Your task to perform on an android device: add a contact in the contacts app Image 0: 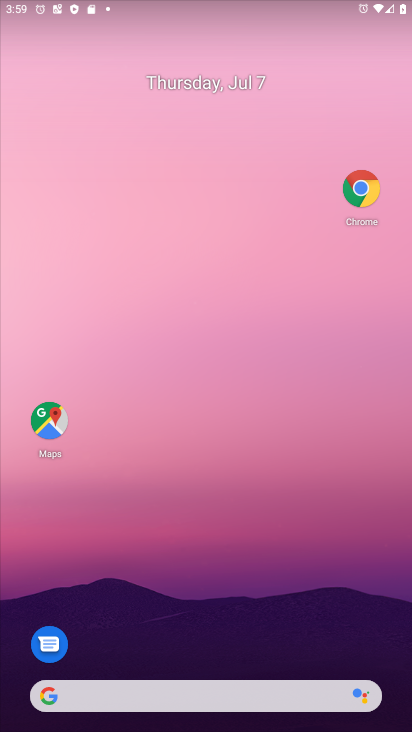
Step 0: press home button
Your task to perform on an android device: add a contact in the contacts app Image 1: 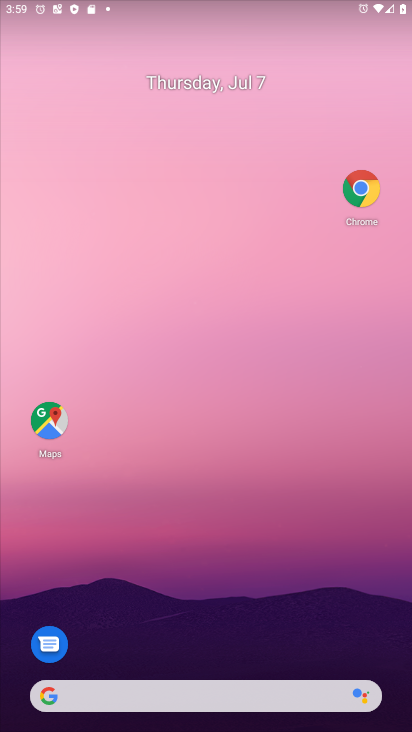
Step 1: click (239, 156)
Your task to perform on an android device: add a contact in the contacts app Image 2: 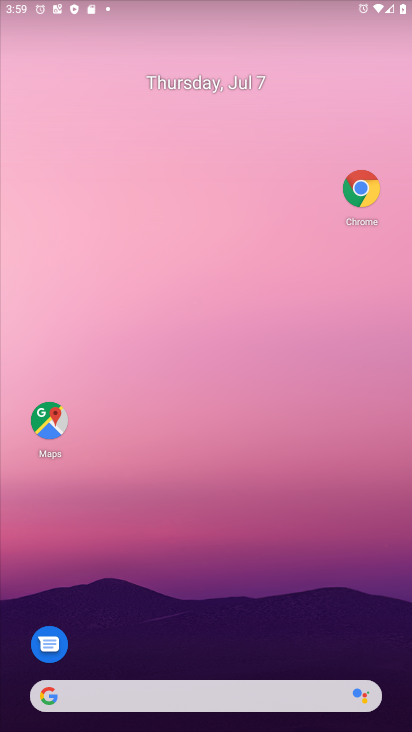
Step 2: drag from (211, 638) to (178, 244)
Your task to perform on an android device: add a contact in the contacts app Image 3: 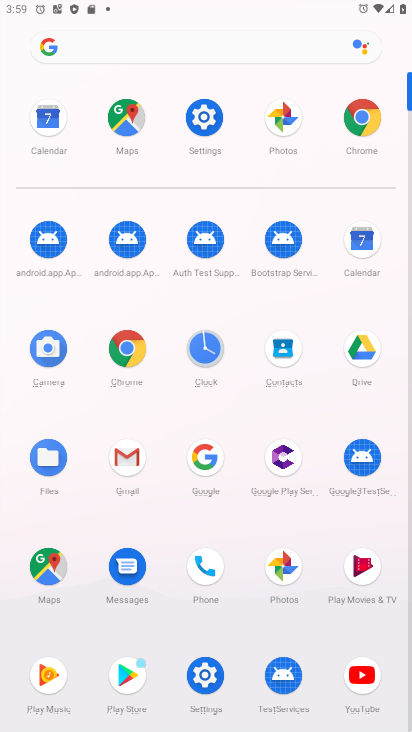
Step 3: click (283, 348)
Your task to perform on an android device: add a contact in the contacts app Image 4: 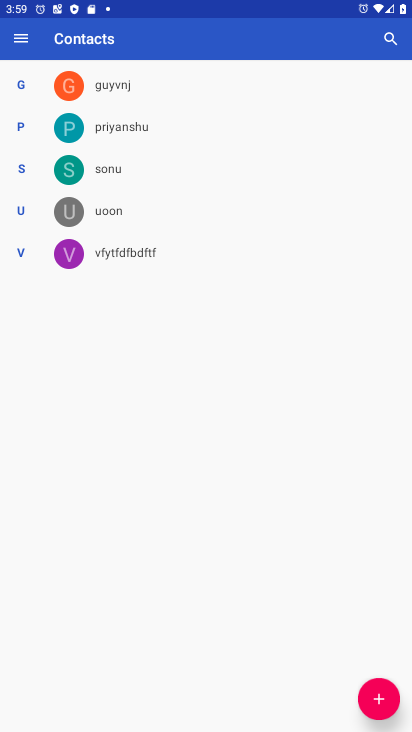
Step 4: click (383, 710)
Your task to perform on an android device: add a contact in the contacts app Image 5: 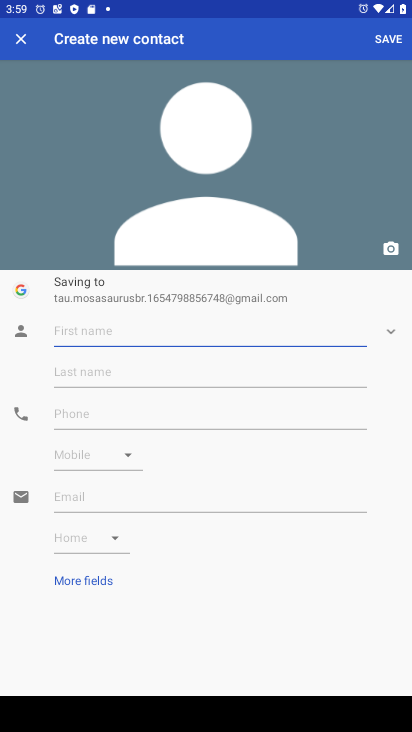
Step 5: type "sina"
Your task to perform on an android device: add a contact in the contacts app Image 6: 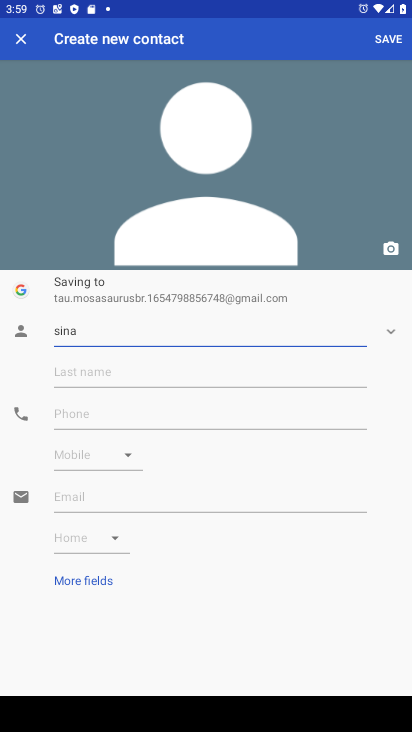
Step 6: click (168, 411)
Your task to perform on an android device: add a contact in the contacts app Image 7: 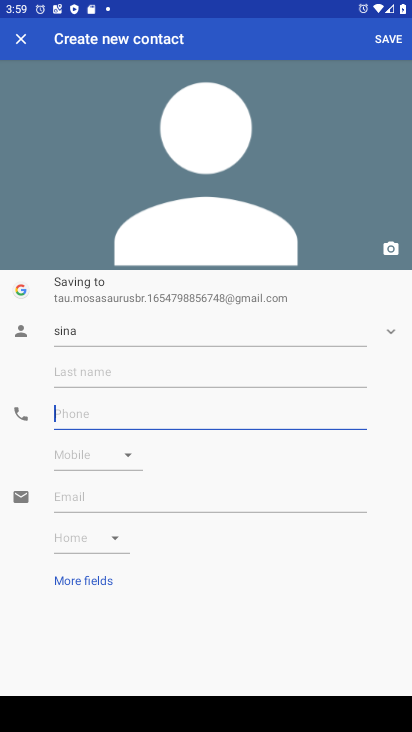
Step 7: click (168, 411)
Your task to perform on an android device: add a contact in the contacts app Image 8: 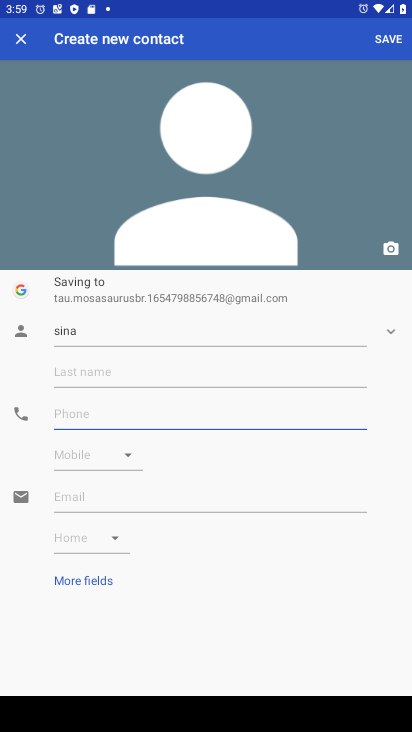
Step 8: click (168, 411)
Your task to perform on an android device: add a contact in the contacts app Image 9: 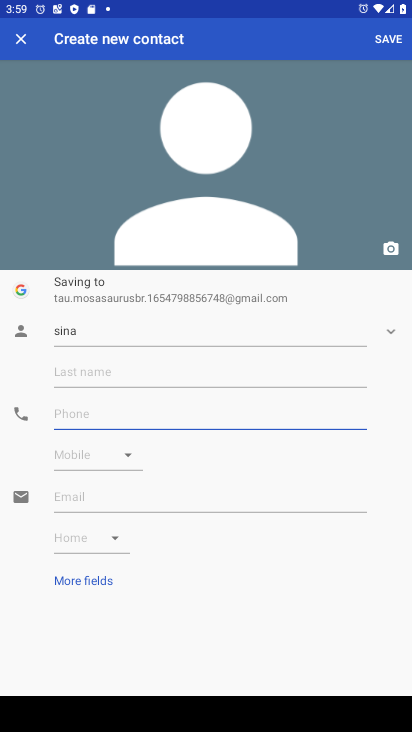
Step 9: click (168, 411)
Your task to perform on an android device: add a contact in the contacts app Image 10: 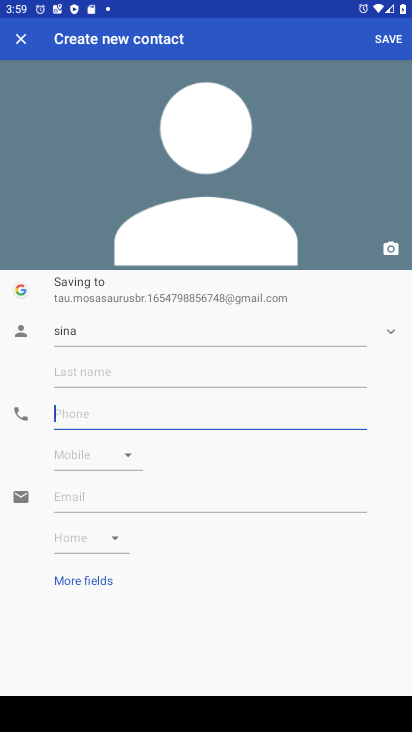
Step 10: type "3984"
Your task to perform on an android device: add a contact in the contacts app Image 11: 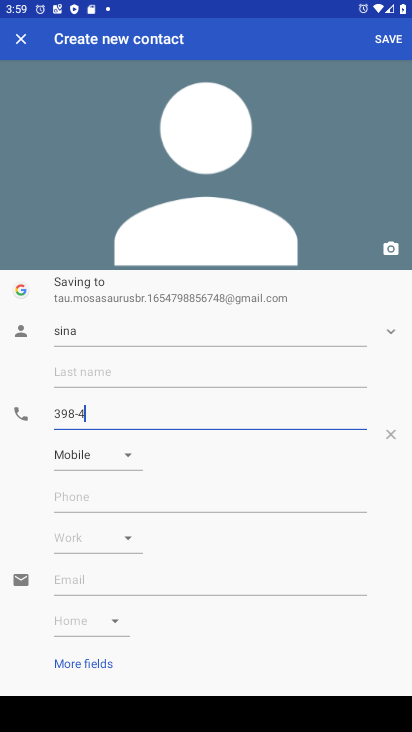
Step 11: click (392, 32)
Your task to perform on an android device: add a contact in the contacts app Image 12: 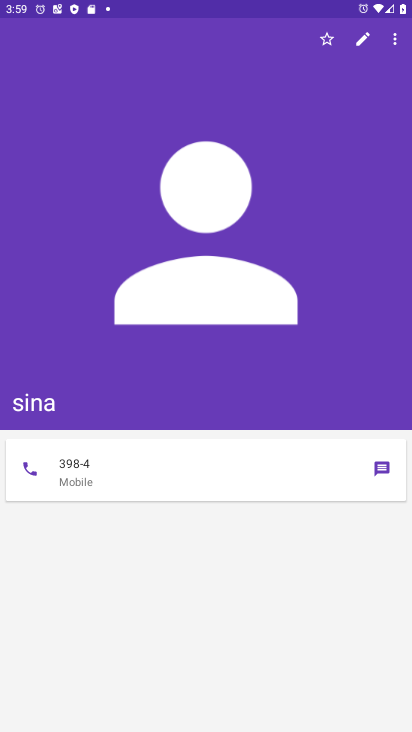
Step 12: task complete